Your task to perform on an android device: change alarm snooze length Image 0: 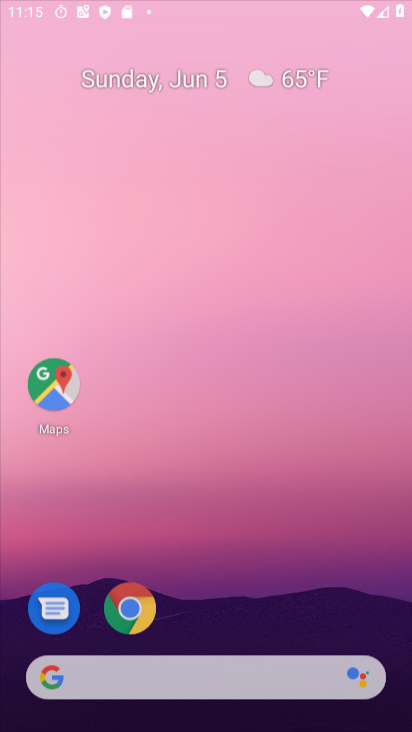
Step 0: click (88, 77)
Your task to perform on an android device: change alarm snooze length Image 1: 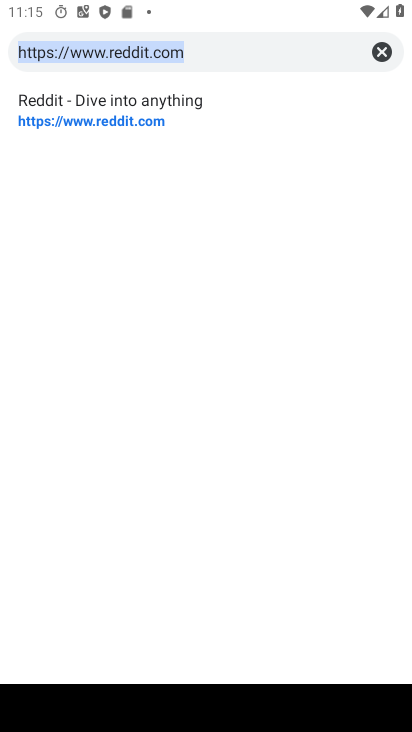
Step 1: press home button
Your task to perform on an android device: change alarm snooze length Image 2: 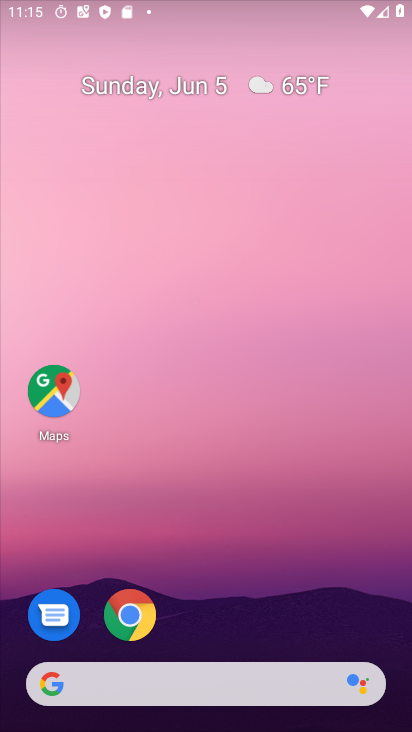
Step 2: drag from (146, 720) to (69, 112)
Your task to perform on an android device: change alarm snooze length Image 3: 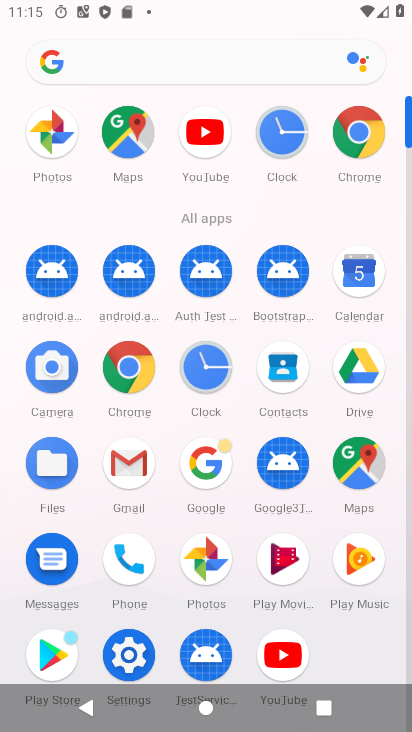
Step 3: click (283, 152)
Your task to perform on an android device: change alarm snooze length Image 4: 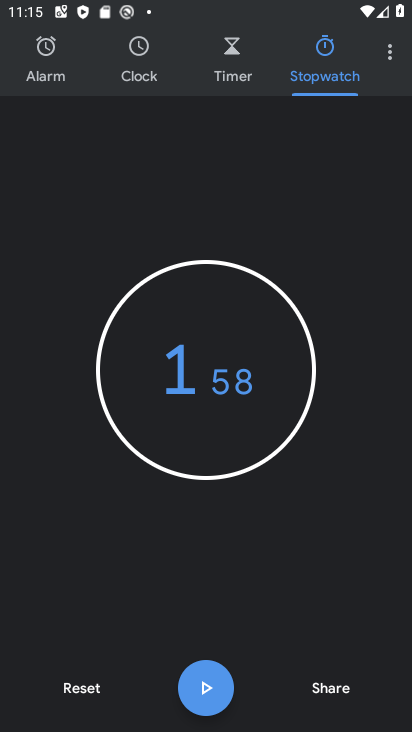
Step 4: click (392, 53)
Your task to perform on an android device: change alarm snooze length Image 5: 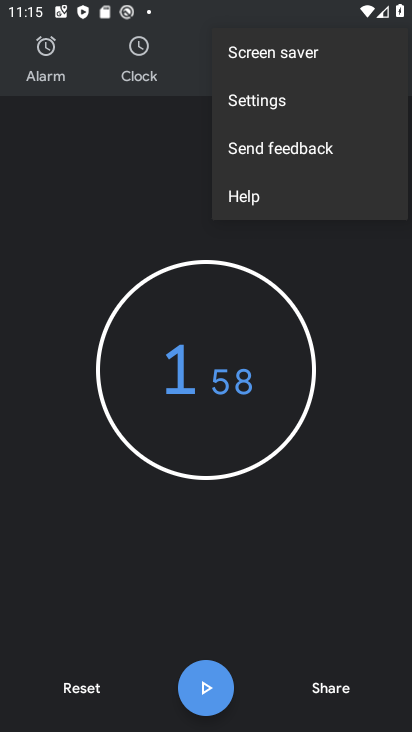
Step 5: click (261, 101)
Your task to perform on an android device: change alarm snooze length Image 6: 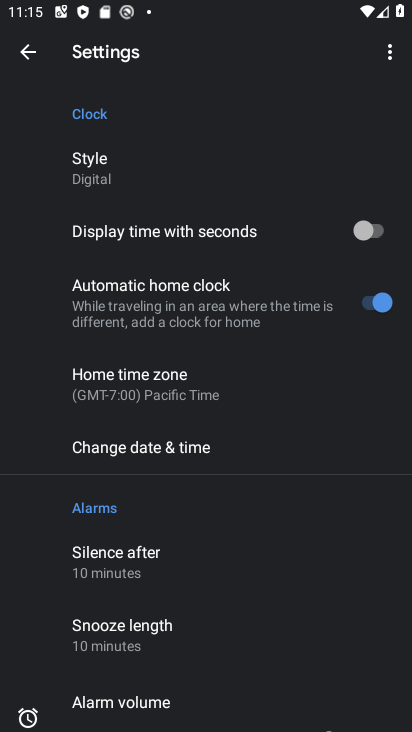
Step 6: click (155, 643)
Your task to perform on an android device: change alarm snooze length Image 7: 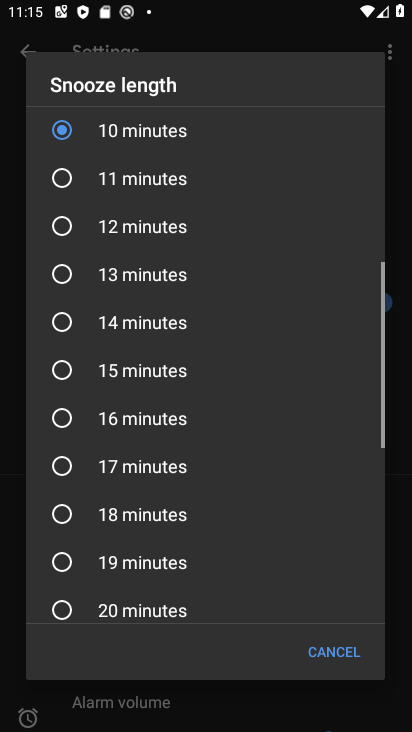
Step 7: click (122, 227)
Your task to perform on an android device: change alarm snooze length Image 8: 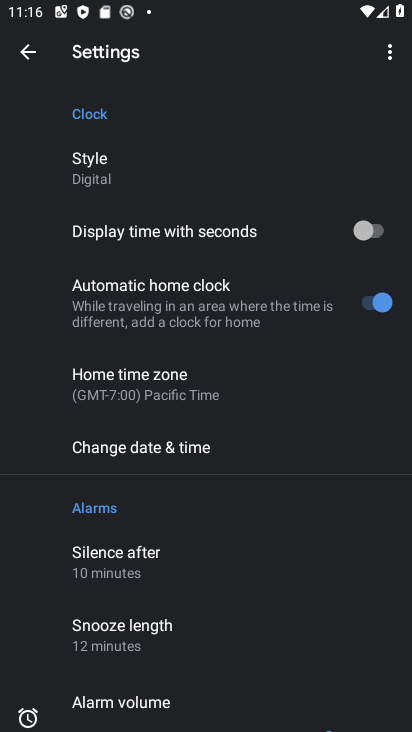
Step 8: task complete